Your task to perform on an android device: Turn off the flashlight Image 0: 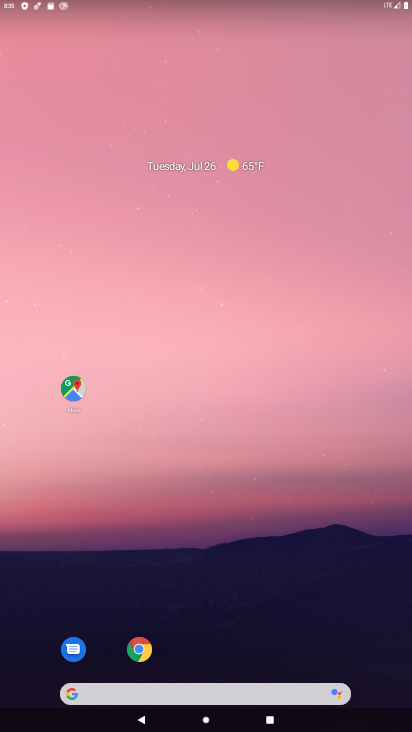
Step 0: drag from (193, 690) to (168, 183)
Your task to perform on an android device: Turn off the flashlight Image 1: 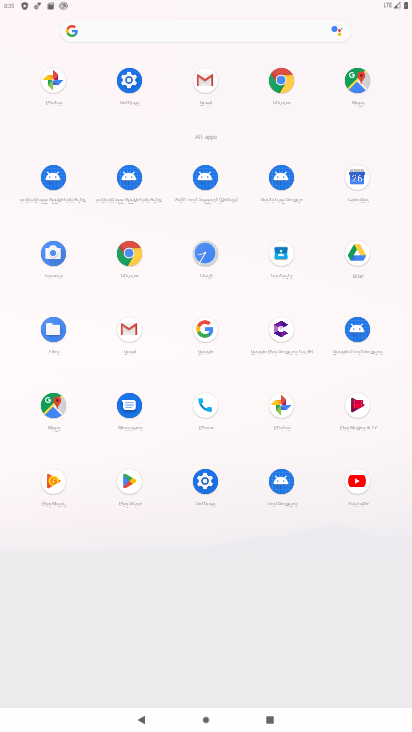
Step 1: click (131, 84)
Your task to perform on an android device: Turn off the flashlight Image 2: 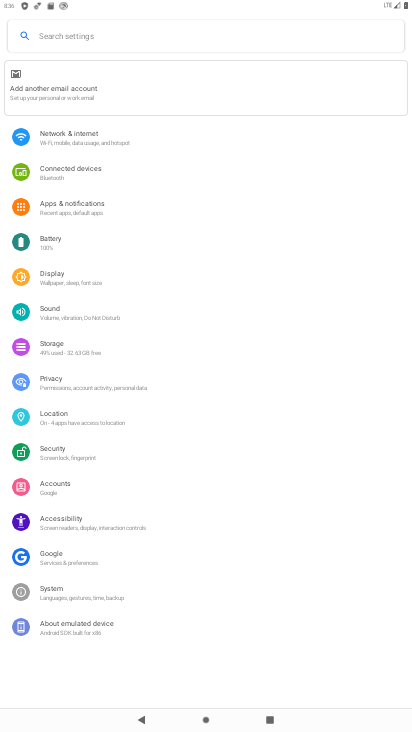
Step 2: click (67, 281)
Your task to perform on an android device: Turn off the flashlight Image 3: 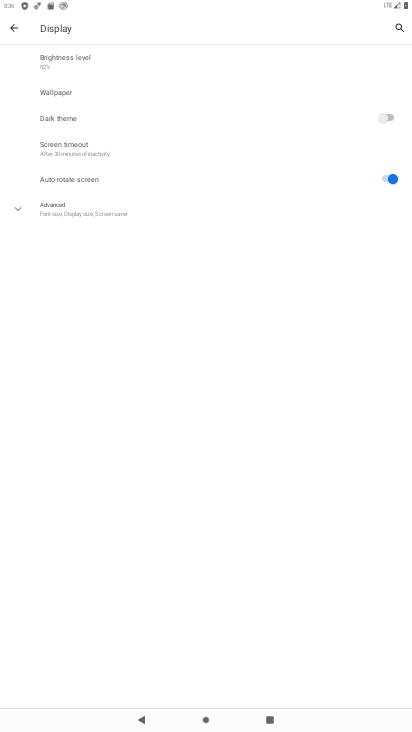
Step 3: click (162, 24)
Your task to perform on an android device: Turn off the flashlight Image 4: 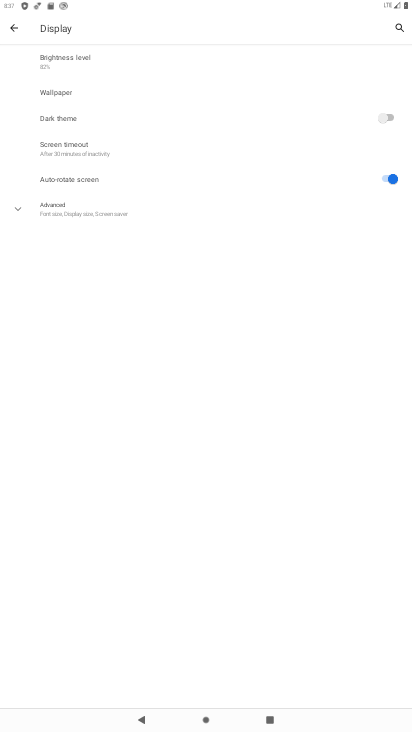
Step 4: click (400, 30)
Your task to perform on an android device: Turn off the flashlight Image 5: 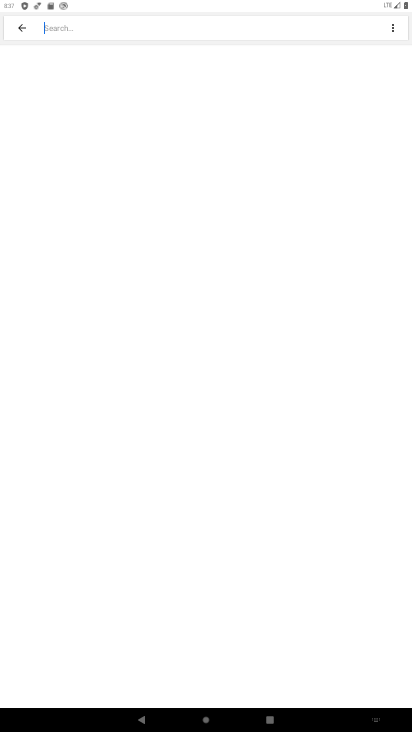
Step 5: type "flashlight"
Your task to perform on an android device: Turn off the flashlight Image 6: 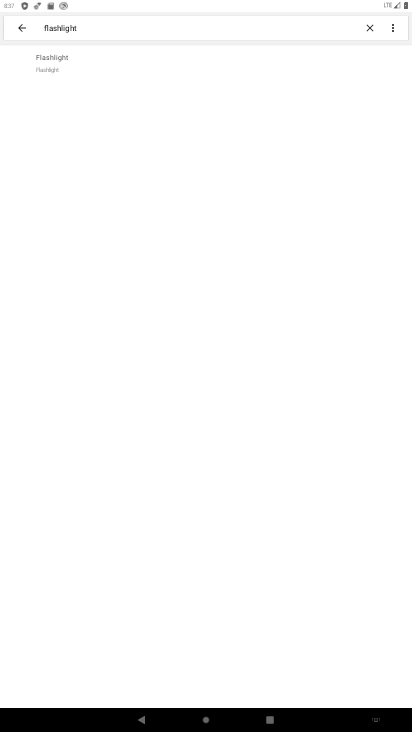
Step 6: click (64, 60)
Your task to perform on an android device: Turn off the flashlight Image 7: 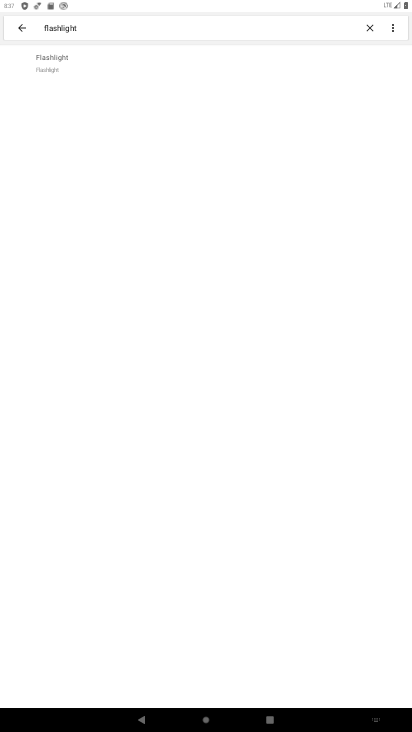
Step 7: task complete